Your task to perform on an android device: turn on location history Image 0: 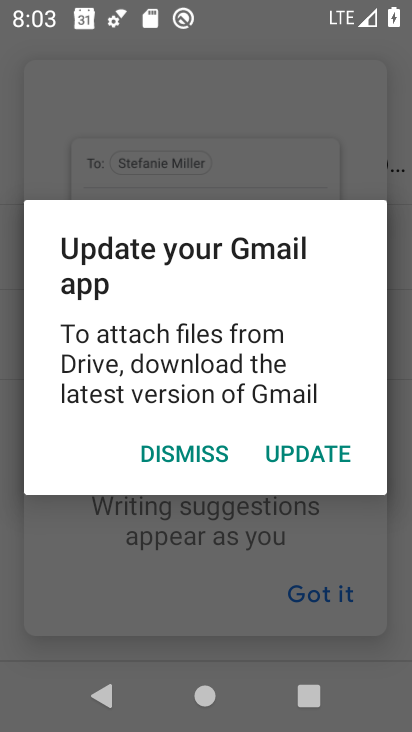
Step 0: press home button
Your task to perform on an android device: turn on location history Image 1: 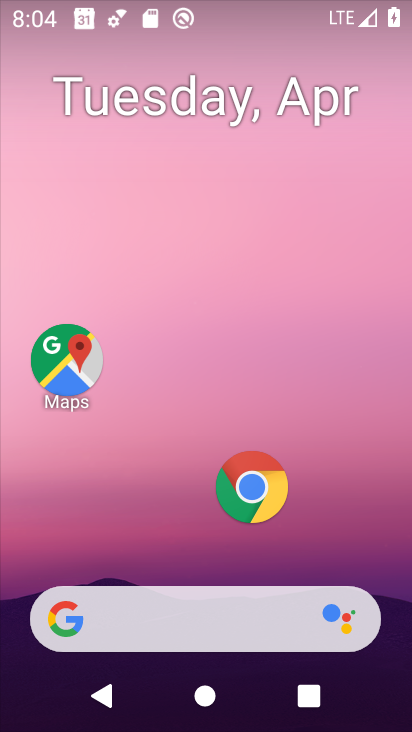
Step 1: drag from (270, 700) to (314, 133)
Your task to perform on an android device: turn on location history Image 2: 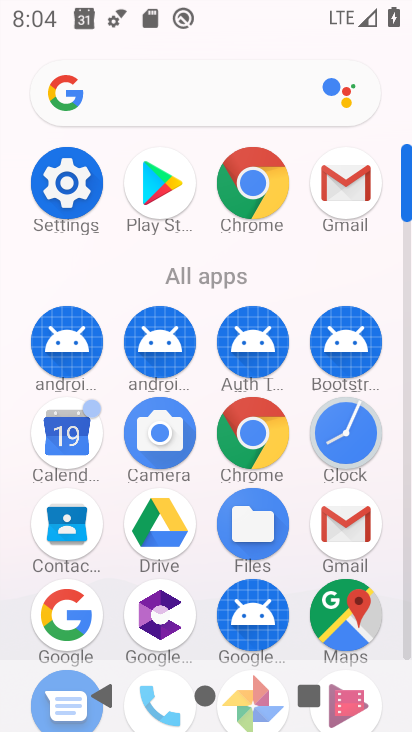
Step 2: click (350, 591)
Your task to perform on an android device: turn on location history Image 3: 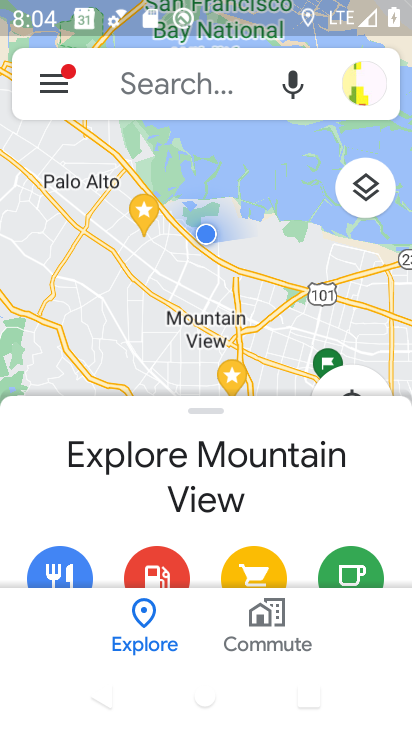
Step 3: click (39, 79)
Your task to perform on an android device: turn on location history Image 4: 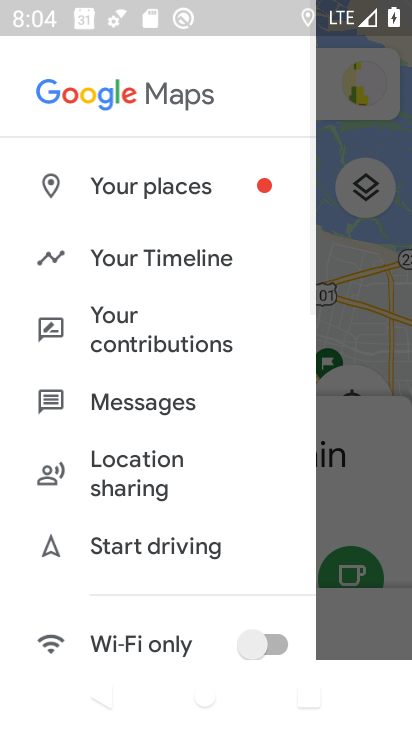
Step 4: drag from (174, 541) to (218, 2)
Your task to perform on an android device: turn on location history Image 5: 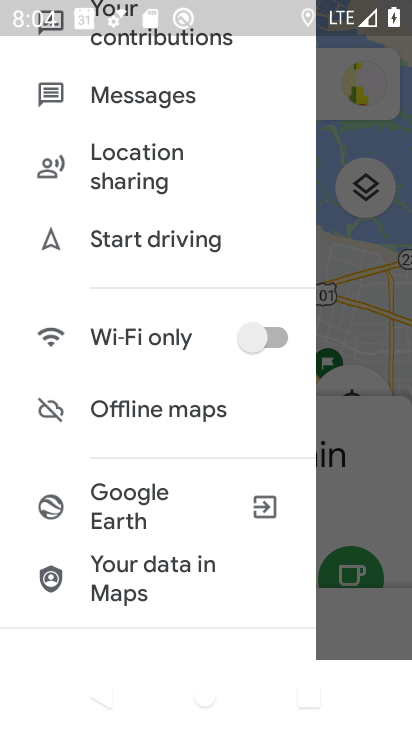
Step 5: drag from (242, 130) to (221, 531)
Your task to perform on an android device: turn on location history Image 6: 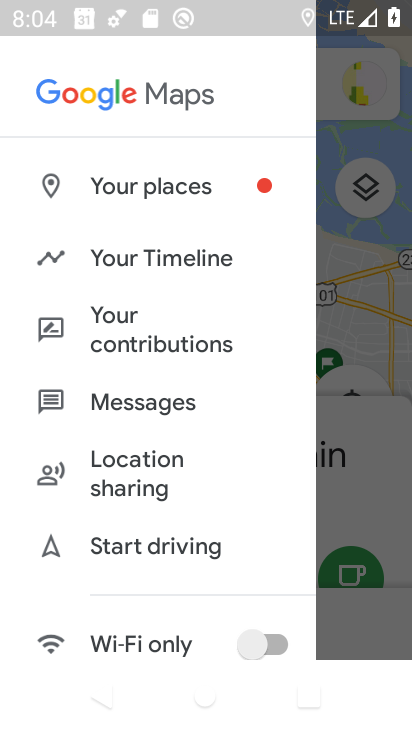
Step 6: click (200, 256)
Your task to perform on an android device: turn on location history Image 7: 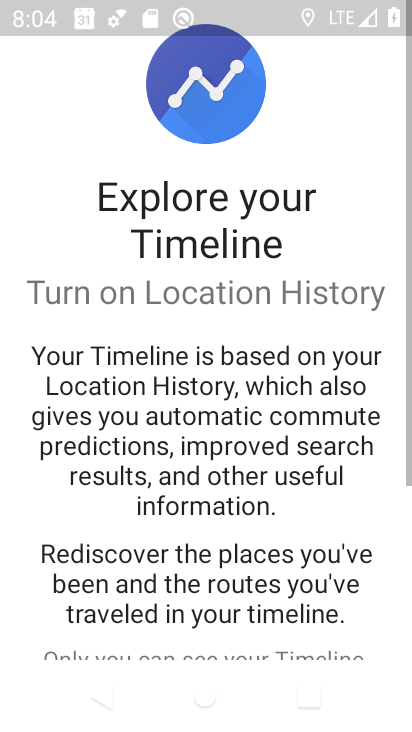
Step 7: drag from (233, 585) to (163, 62)
Your task to perform on an android device: turn on location history Image 8: 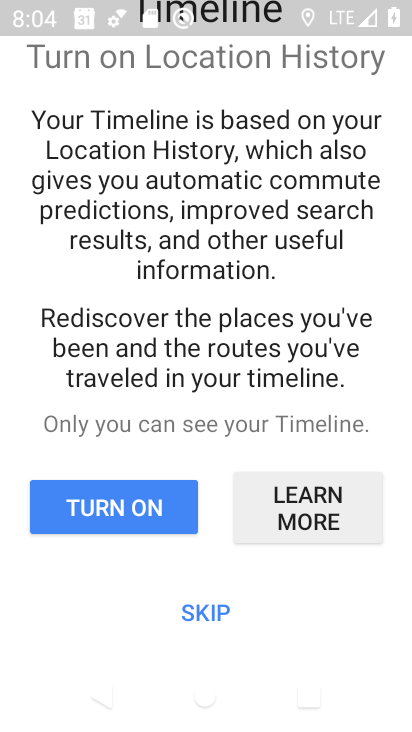
Step 8: click (215, 610)
Your task to perform on an android device: turn on location history Image 9: 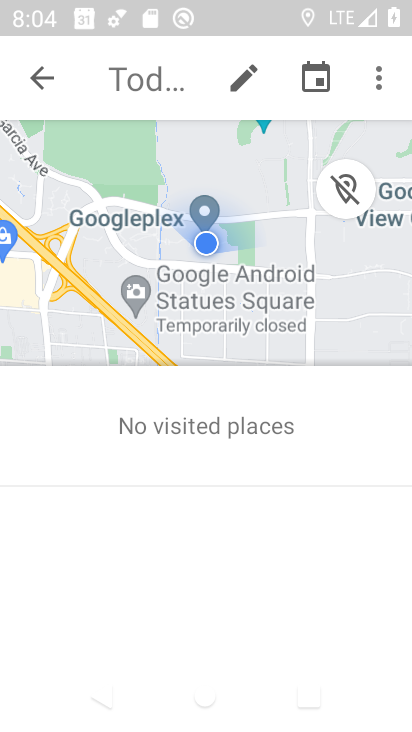
Step 9: click (374, 69)
Your task to perform on an android device: turn on location history Image 10: 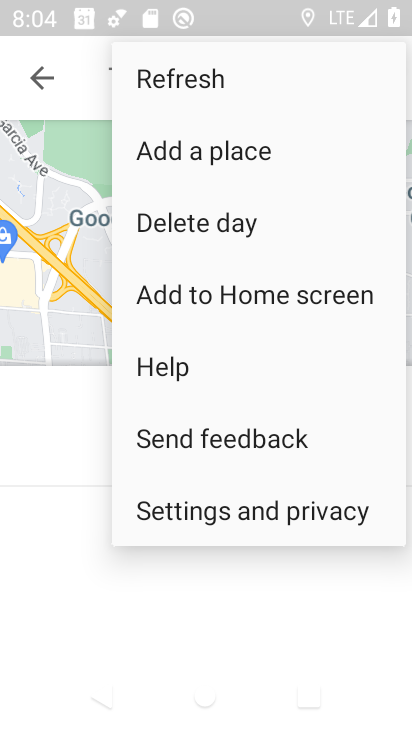
Step 10: click (211, 516)
Your task to perform on an android device: turn on location history Image 11: 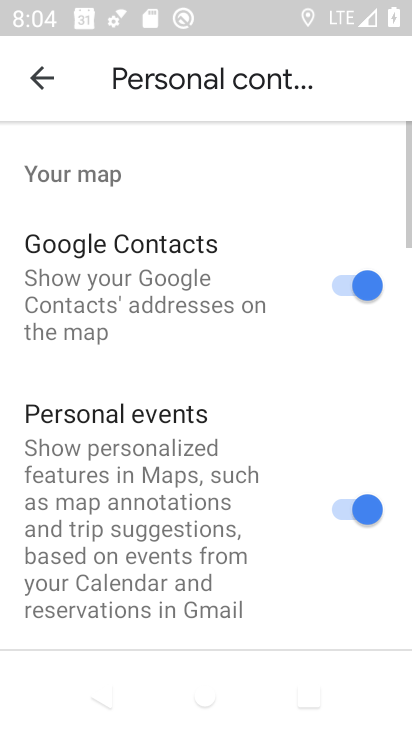
Step 11: drag from (253, 538) to (233, 7)
Your task to perform on an android device: turn on location history Image 12: 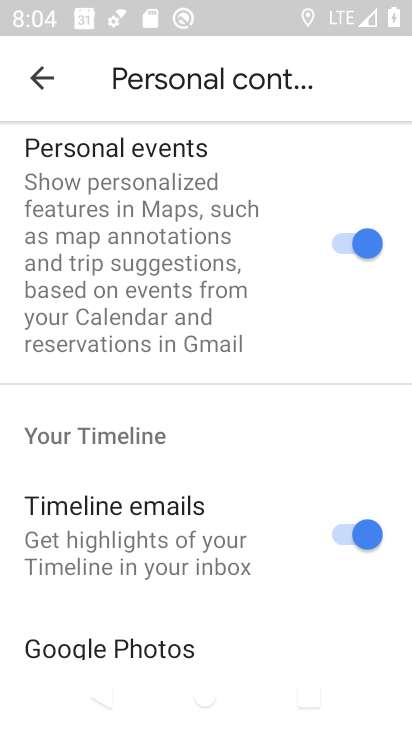
Step 12: drag from (227, 647) to (234, 92)
Your task to perform on an android device: turn on location history Image 13: 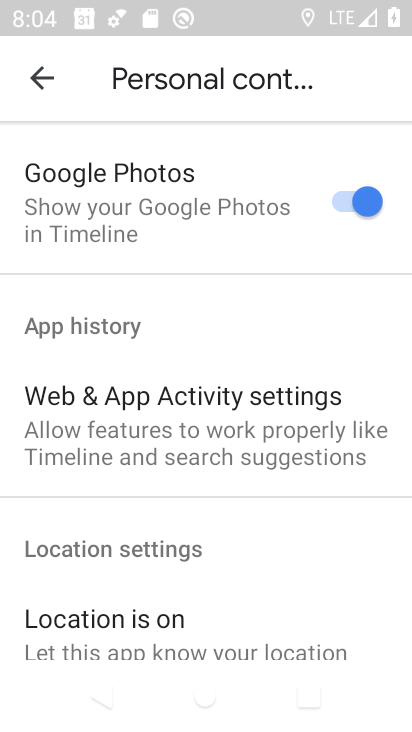
Step 13: drag from (269, 622) to (258, 111)
Your task to perform on an android device: turn on location history Image 14: 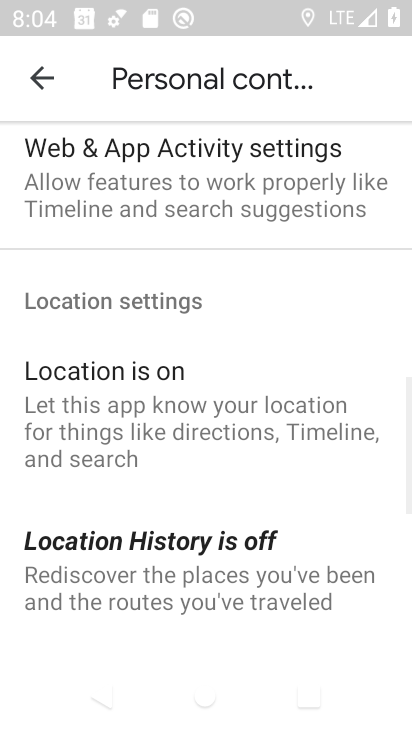
Step 14: click (273, 562)
Your task to perform on an android device: turn on location history Image 15: 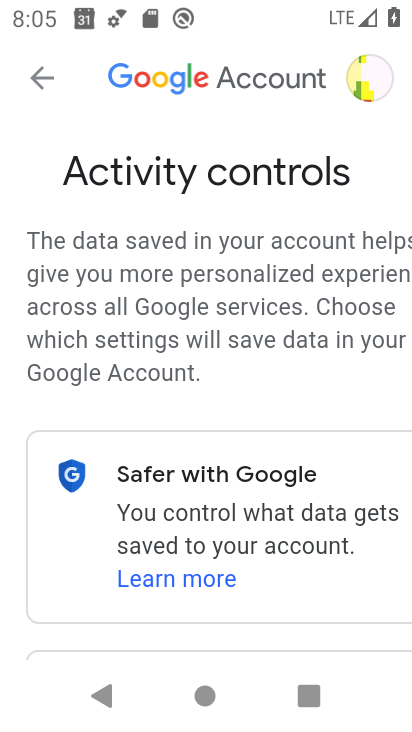
Step 15: drag from (240, 511) to (234, 15)
Your task to perform on an android device: turn on location history Image 16: 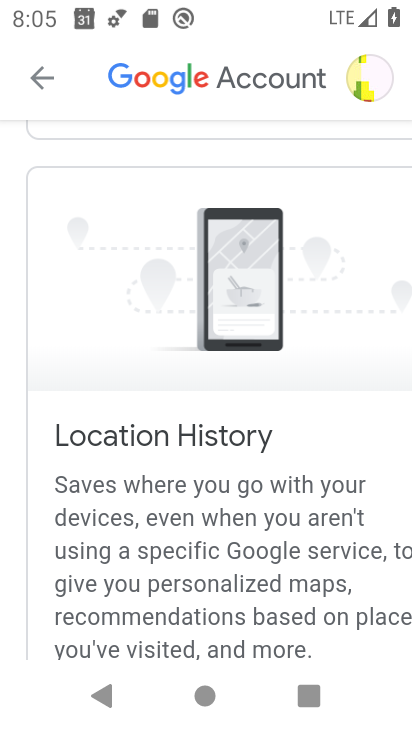
Step 16: click (272, 6)
Your task to perform on an android device: turn on location history Image 17: 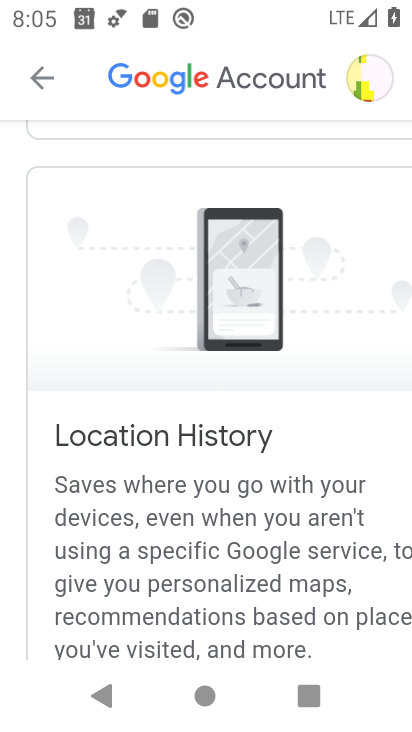
Step 17: drag from (305, 581) to (254, 126)
Your task to perform on an android device: turn on location history Image 18: 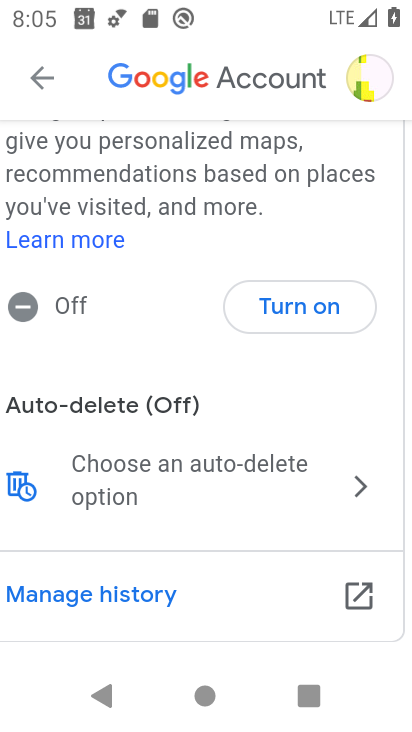
Step 18: click (323, 310)
Your task to perform on an android device: turn on location history Image 19: 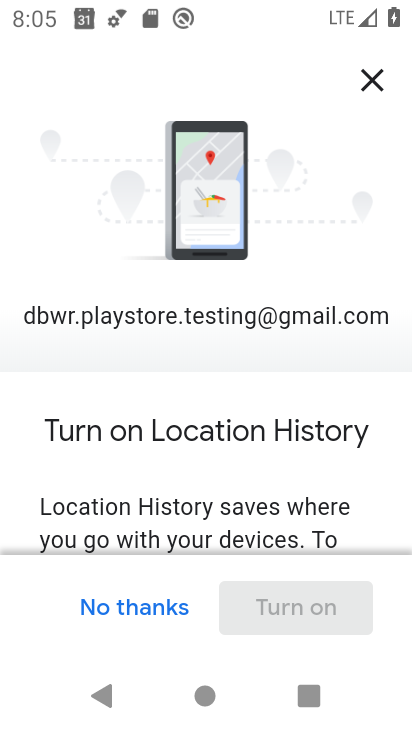
Step 19: drag from (330, 460) to (253, 19)
Your task to perform on an android device: turn on location history Image 20: 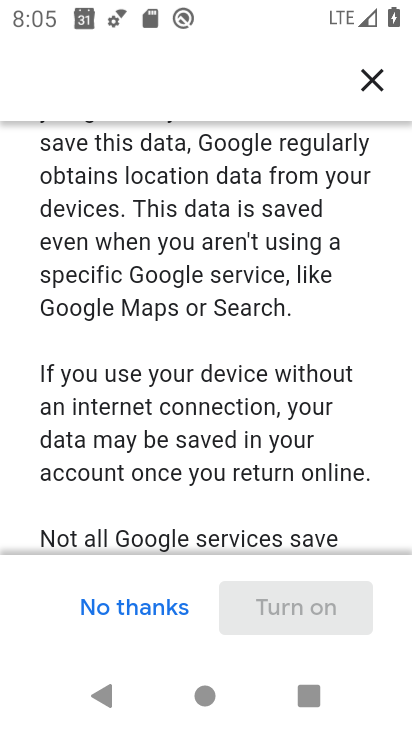
Step 20: drag from (314, 522) to (246, 5)
Your task to perform on an android device: turn on location history Image 21: 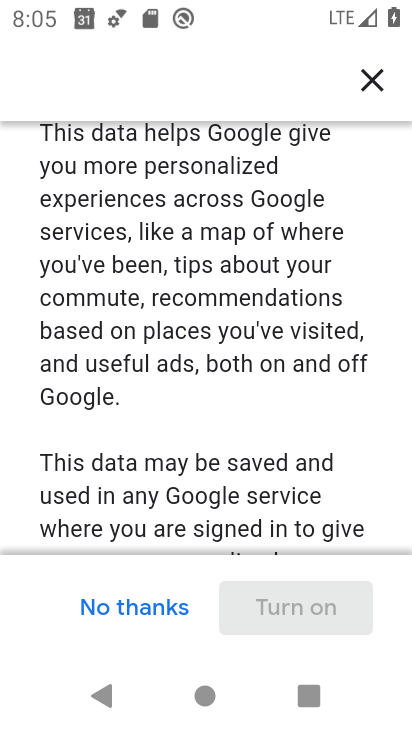
Step 21: drag from (262, 341) to (235, 4)
Your task to perform on an android device: turn on location history Image 22: 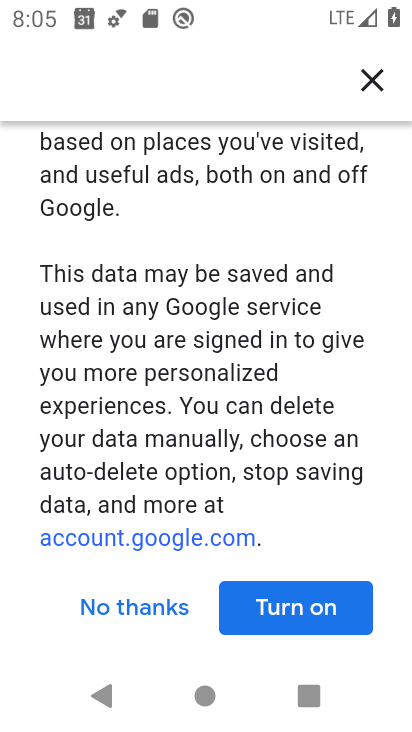
Step 22: drag from (269, 512) to (166, 8)
Your task to perform on an android device: turn on location history Image 23: 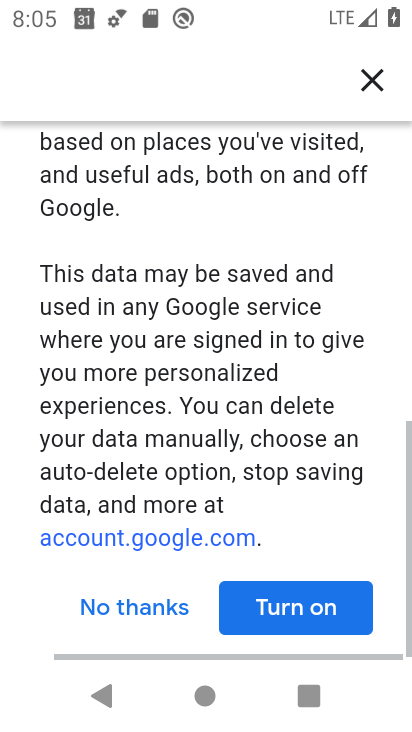
Step 23: click (272, 617)
Your task to perform on an android device: turn on location history Image 24: 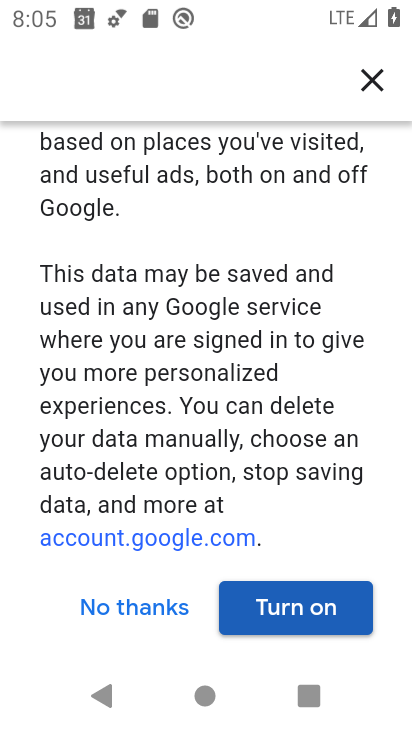
Step 24: task complete